Your task to perform on an android device: turn off smart reply in the gmail app Image 0: 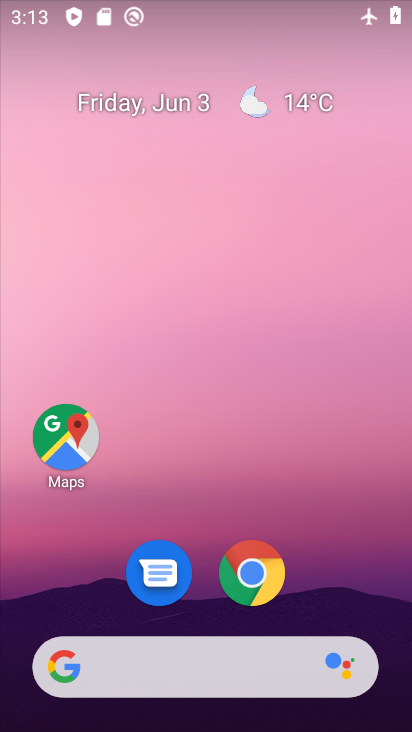
Step 0: drag from (206, 536) to (217, 177)
Your task to perform on an android device: turn off smart reply in the gmail app Image 1: 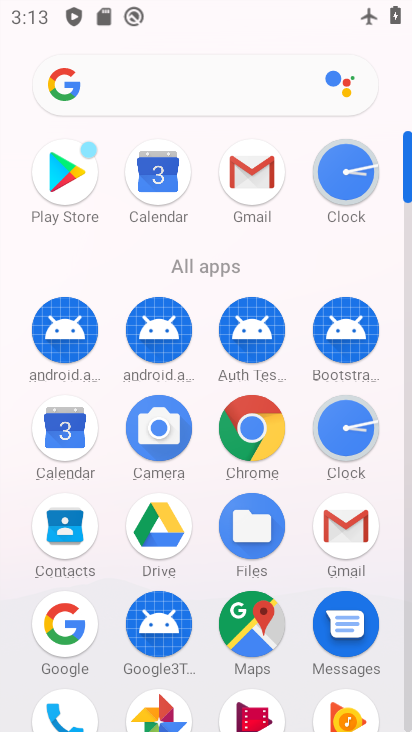
Step 1: click (252, 180)
Your task to perform on an android device: turn off smart reply in the gmail app Image 2: 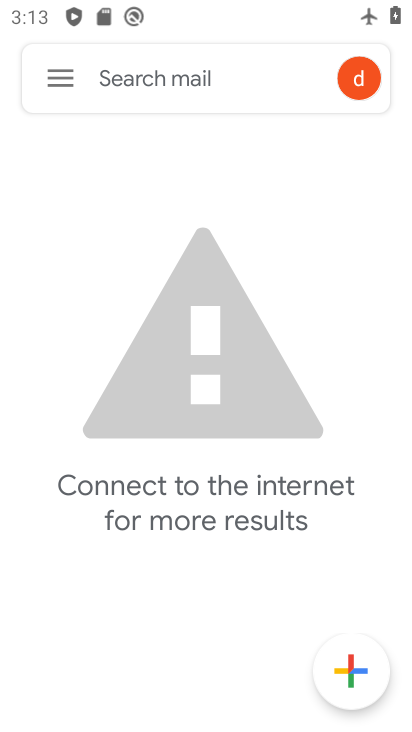
Step 2: click (61, 73)
Your task to perform on an android device: turn off smart reply in the gmail app Image 3: 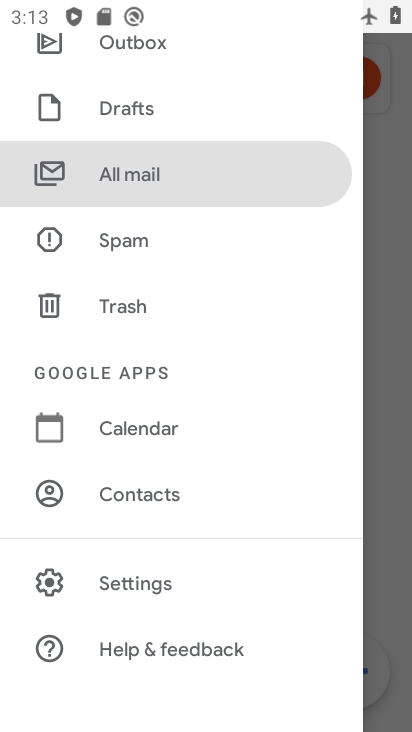
Step 3: click (115, 566)
Your task to perform on an android device: turn off smart reply in the gmail app Image 4: 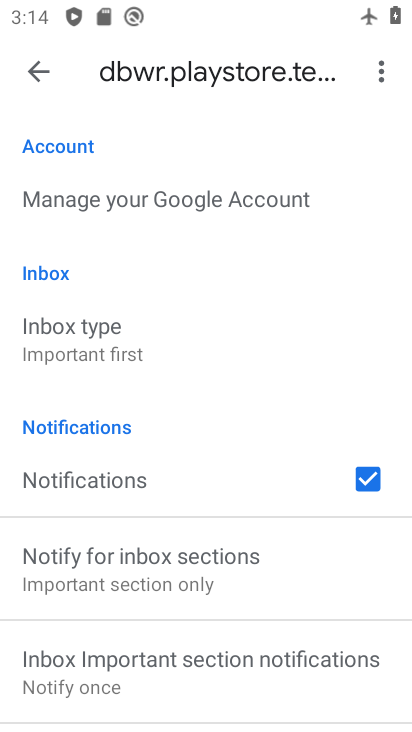
Step 4: click (215, 216)
Your task to perform on an android device: turn off smart reply in the gmail app Image 5: 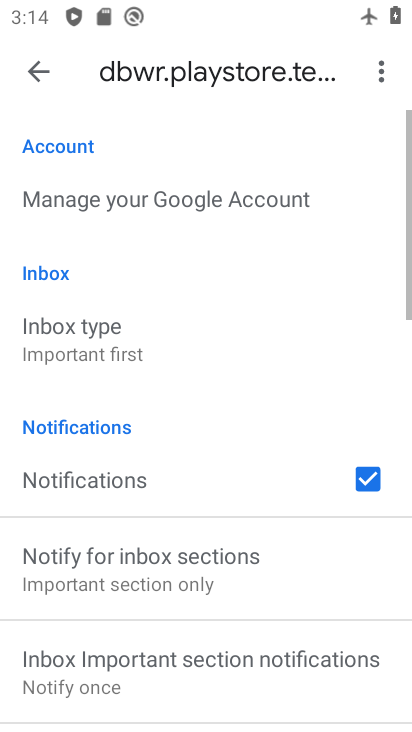
Step 5: task complete